Your task to perform on an android device: turn off smart reply in the gmail app Image 0: 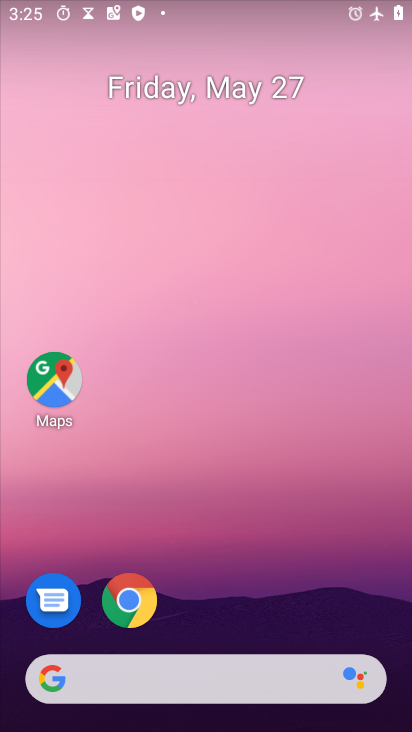
Step 0: drag from (233, 581) to (224, 20)
Your task to perform on an android device: turn off smart reply in the gmail app Image 1: 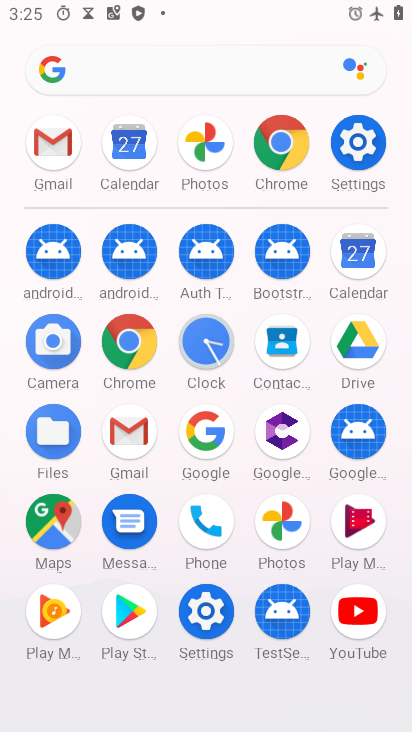
Step 1: drag from (2, 475) to (15, 262)
Your task to perform on an android device: turn off smart reply in the gmail app Image 2: 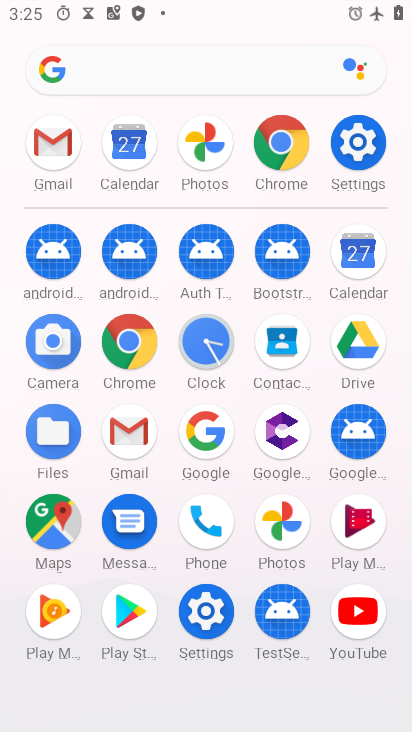
Step 2: drag from (11, 612) to (29, 276)
Your task to perform on an android device: turn off smart reply in the gmail app Image 3: 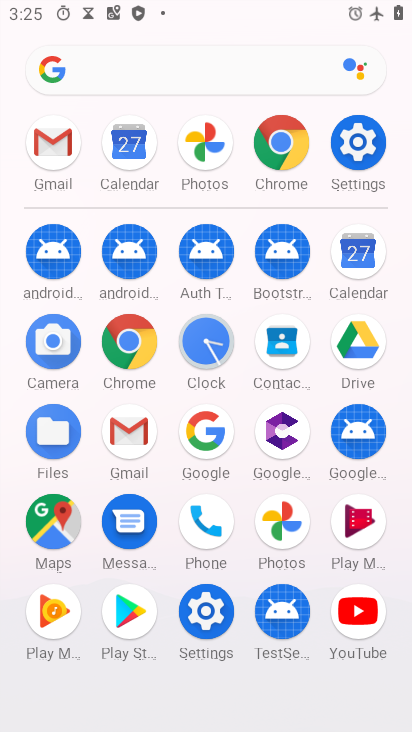
Step 3: click (126, 426)
Your task to perform on an android device: turn off smart reply in the gmail app Image 4: 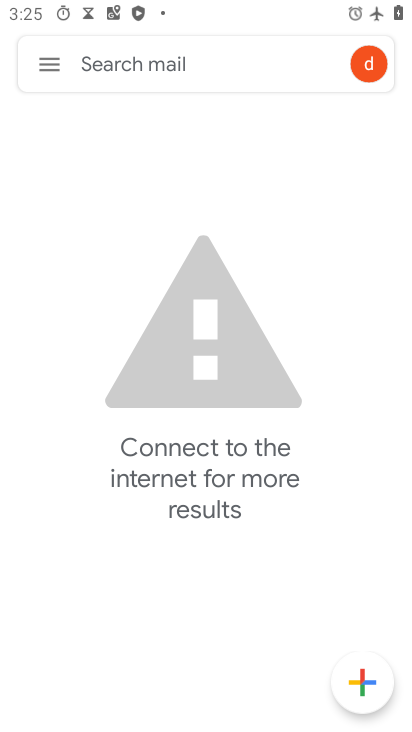
Step 4: click (43, 62)
Your task to perform on an android device: turn off smart reply in the gmail app Image 5: 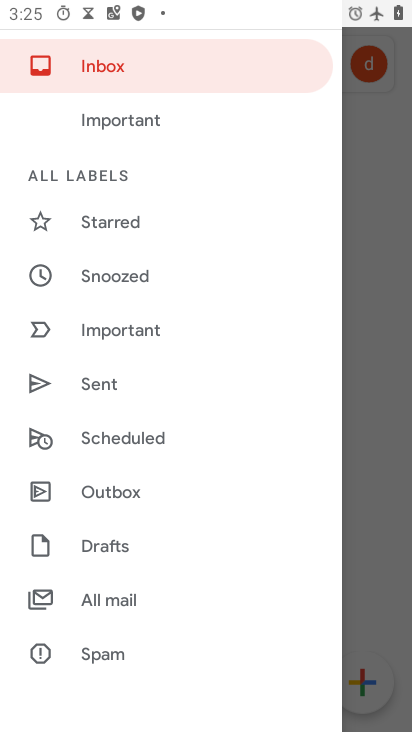
Step 5: drag from (184, 614) to (184, 129)
Your task to perform on an android device: turn off smart reply in the gmail app Image 6: 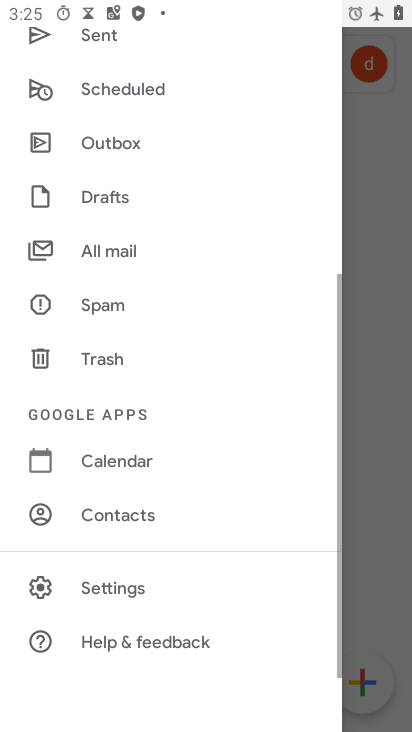
Step 6: drag from (178, 540) to (176, 183)
Your task to perform on an android device: turn off smart reply in the gmail app Image 7: 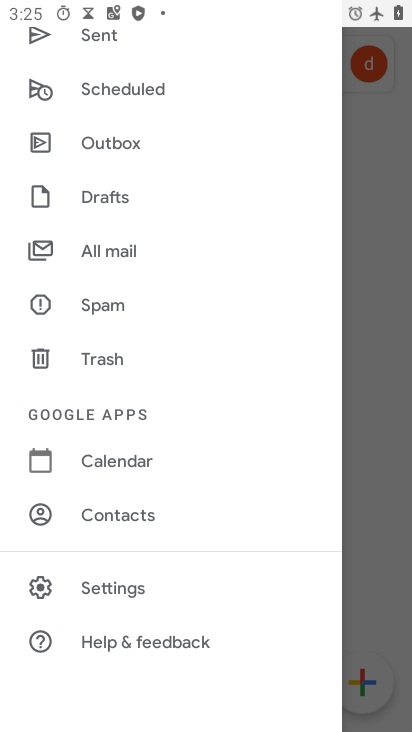
Step 7: click (116, 580)
Your task to perform on an android device: turn off smart reply in the gmail app Image 8: 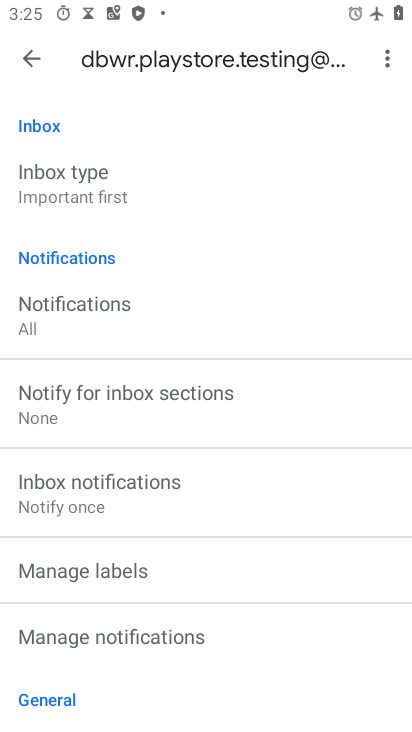
Step 8: drag from (227, 622) to (227, 150)
Your task to perform on an android device: turn off smart reply in the gmail app Image 9: 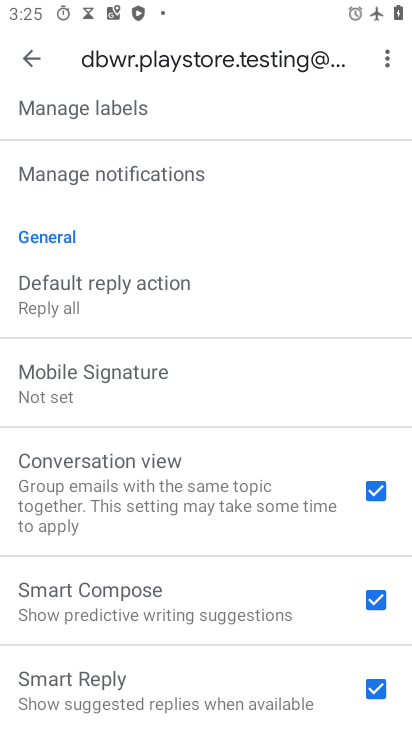
Step 9: click (146, 163)
Your task to perform on an android device: turn off smart reply in the gmail app Image 10: 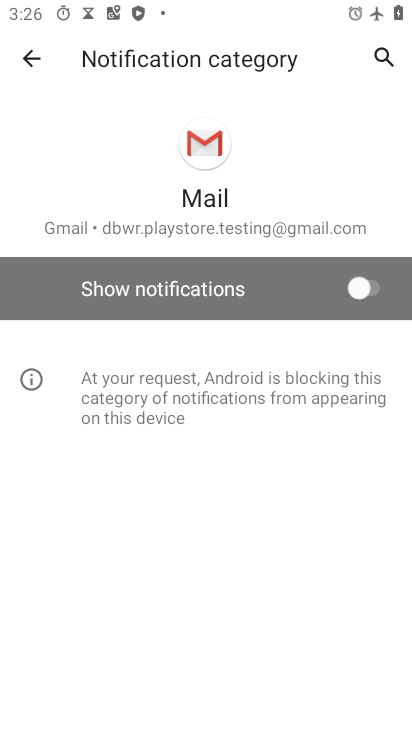
Step 10: click (39, 54)
Your task to perform on an android device: turn off smart reply in the gmail app Image 11: 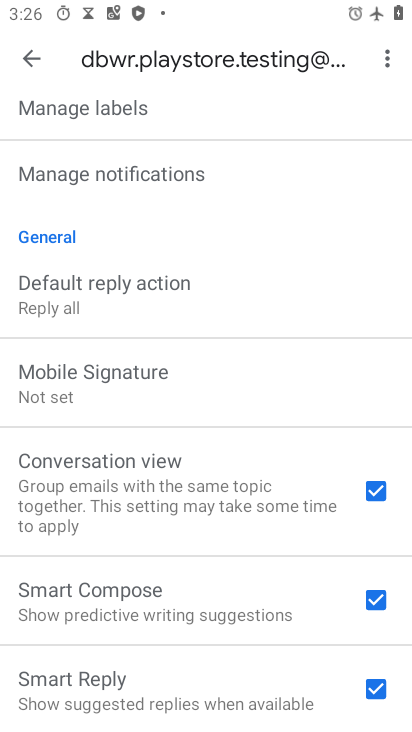
Step 11: drag from (197, 565) to (224, 287)
Your task to perform on an android device: turn off smart reply in the gmail app Image 12: 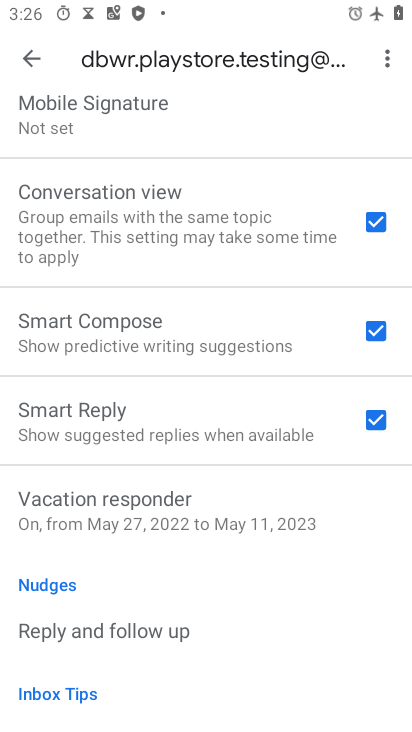
Step 12: click (381, 419)
Your task to perform on an android device: turn off smart reply in the gmail app Image 13: 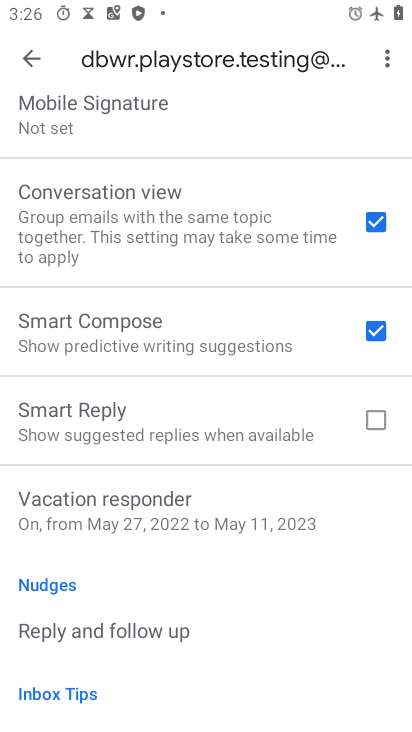
Step 13: task complete